Your task to perform on an android device: Open calendar and show me the third week of next month Image 0: 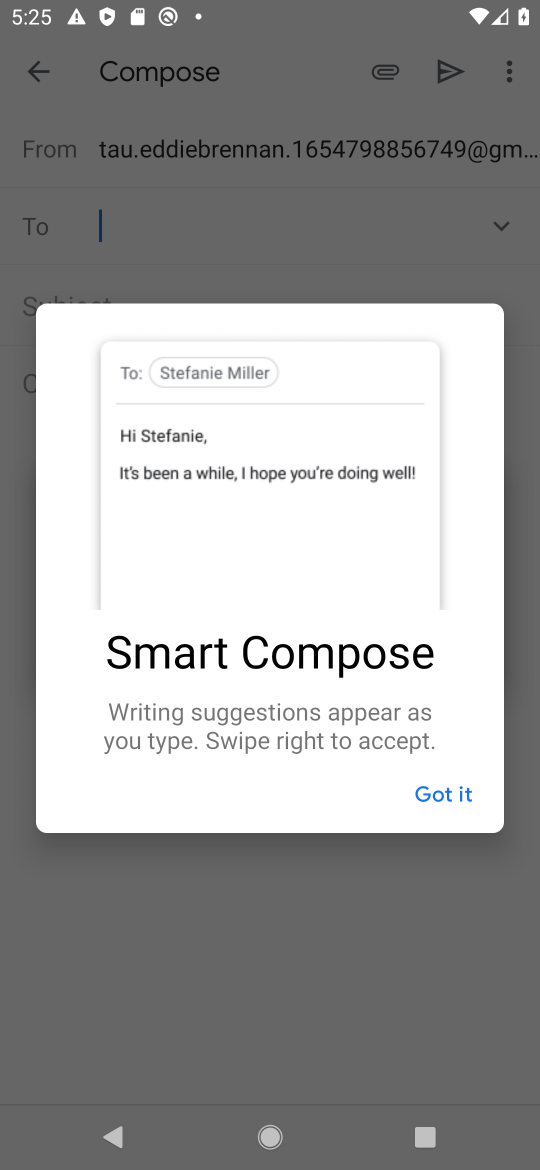
Step 0: press home button
Your task to perform on an android device: Open calendar and show me the third week of next month Image 1: 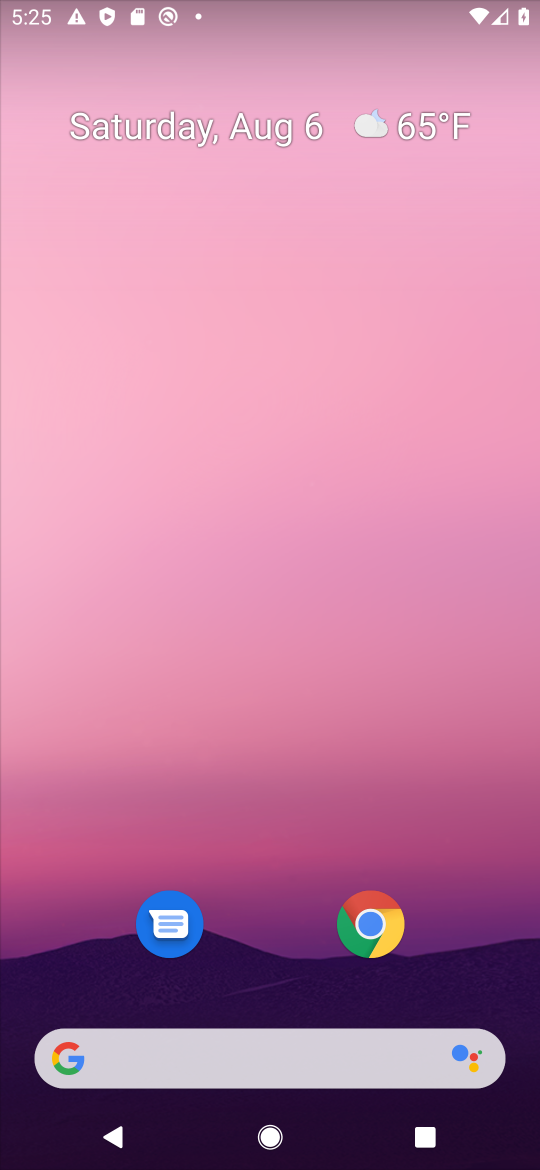
Step 1: drag from (333, 1112) to (344, 49)
Your task to perform on an android device: Open calendar and show me the third week of next month Image 2: 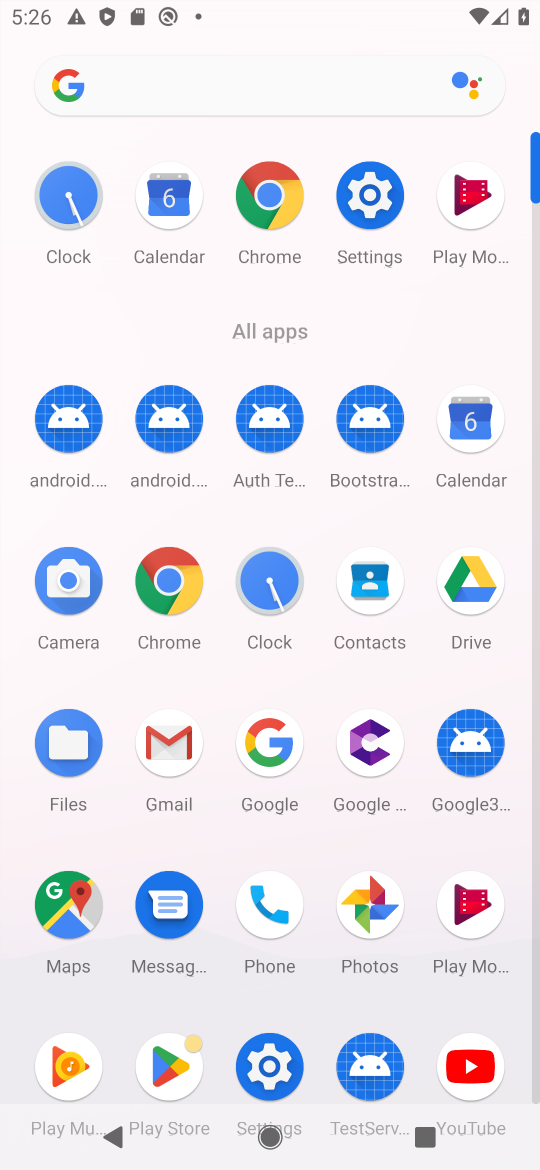
Step 2: click (491, 403)
Your task to perform on an android device: Open calendar and show me the third week of next month Image 3: 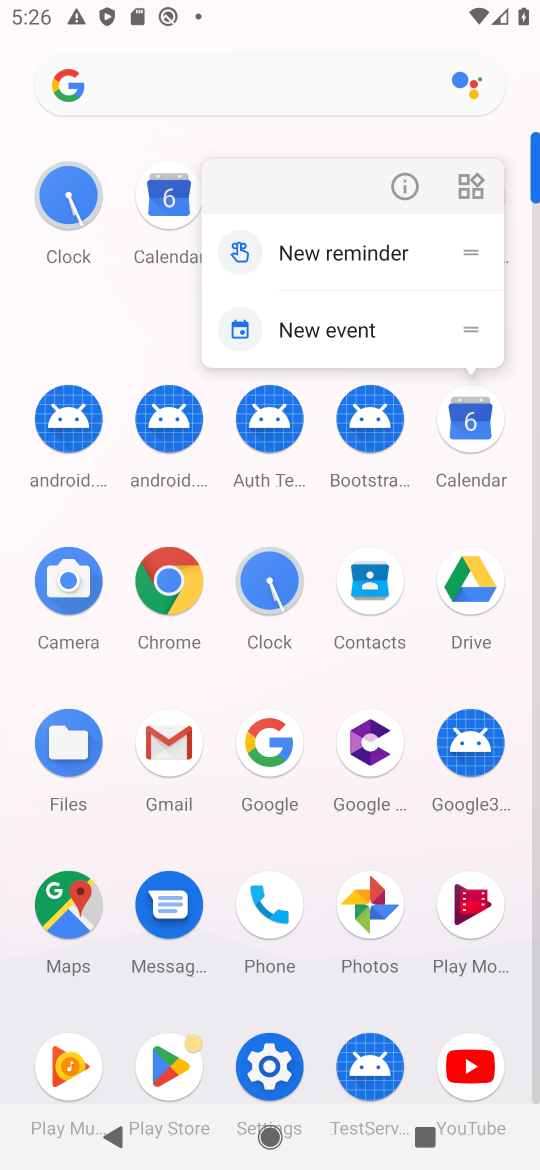
Step 3: click (478, 435)
Your task to perform on an android device: Open calendar and show me the third week of next month Image 4: 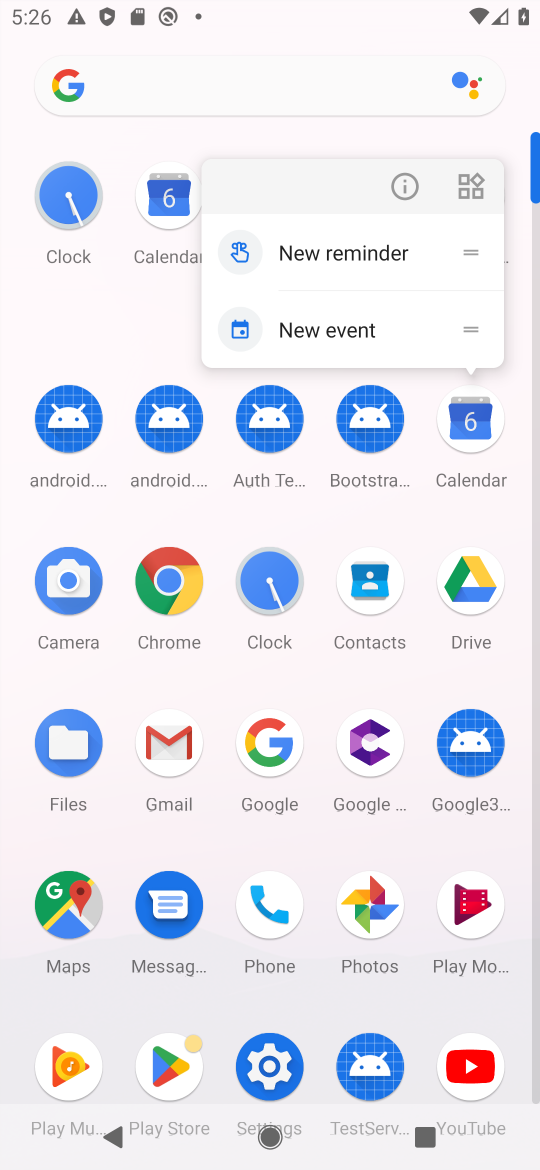
Step 4: click (478, 435)
Your task to perform on an android device: Open calendar and show me the third week of next month Image 5: 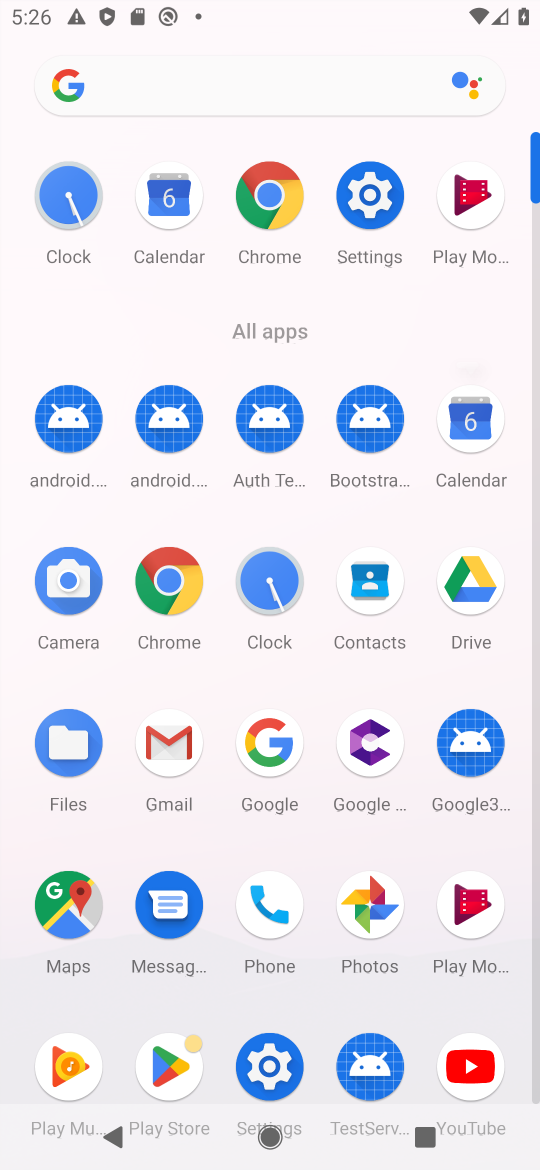
Step 5: click (478, 435)
Your task to perform on an android device: Open calendar and show me the third week of next month Image 6: 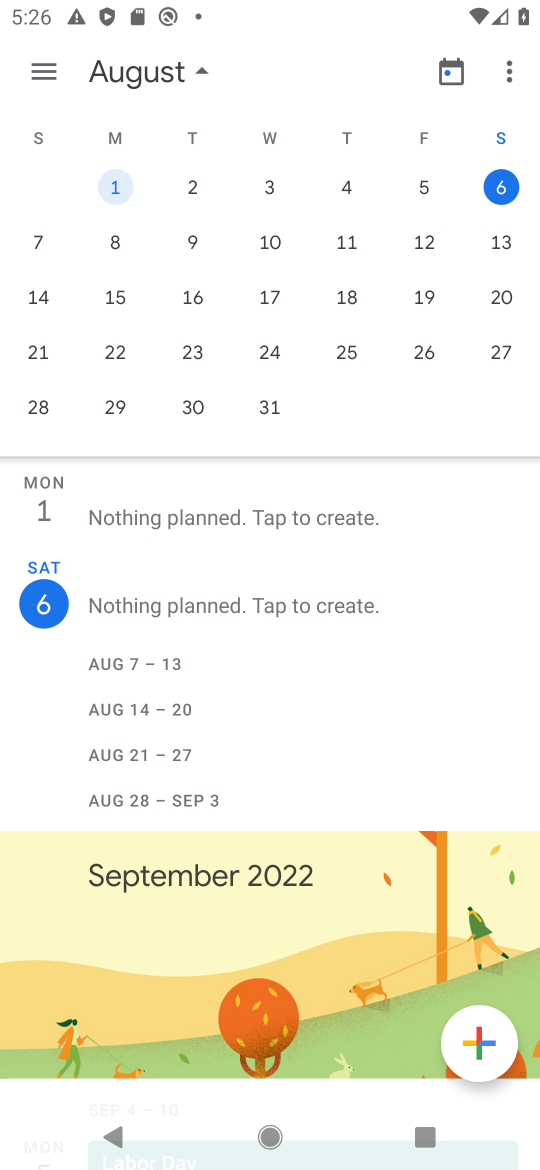
Step 6: drag from (517, 363) to (7, 362)
Your task to perform on an android device: Open calendar and show me the third week of next month Image 7: 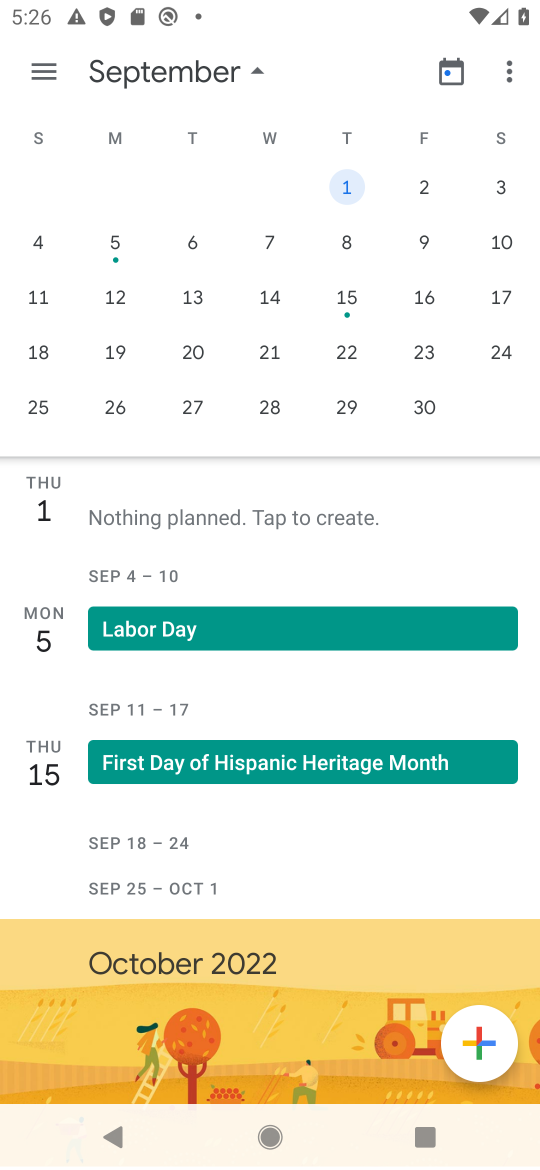
Step 7: click (43, 299)
Your task to perform on an android device: Open calendar and show me the third week of next month Image 8: 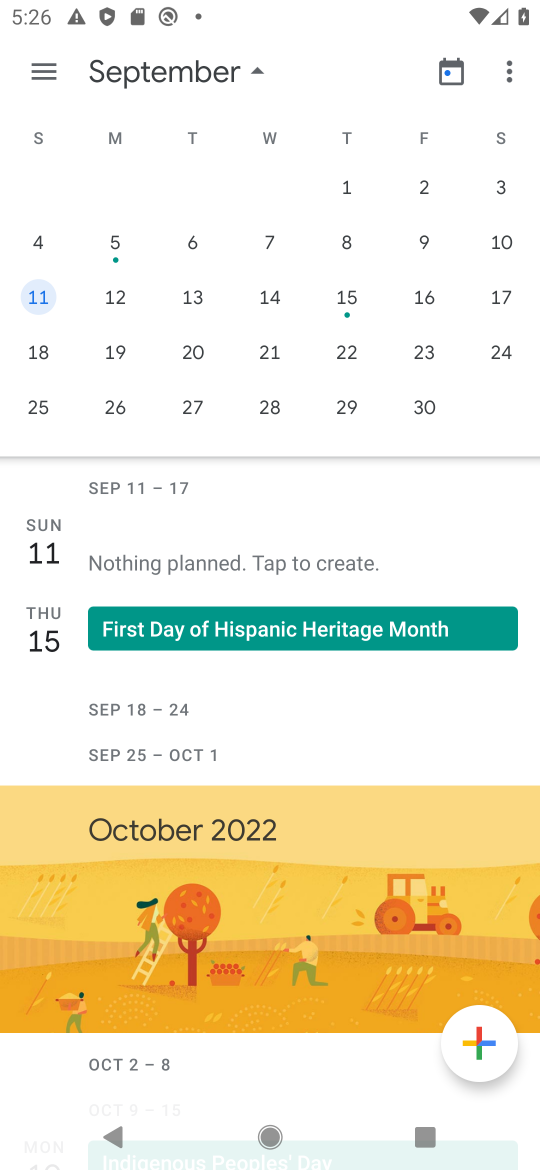
Step 8: task complete